Your task to perform on an android device: open app "Pinterest" (install if not already installed) Image 0: 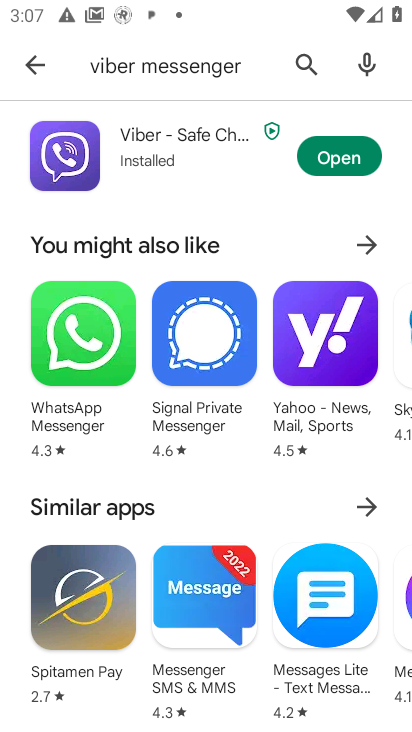
Step 0: click (292, 61)
Your task to perform on an android device: open app "Pinterest" (install if not already installed) Image 1: 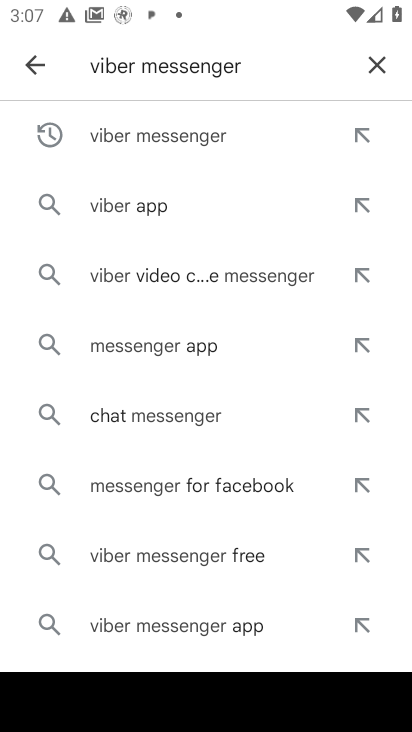
Step 1: click (372, 57)
Your task to perform on an android device: open app "Pinterest" (install if not already installed) Image 2: 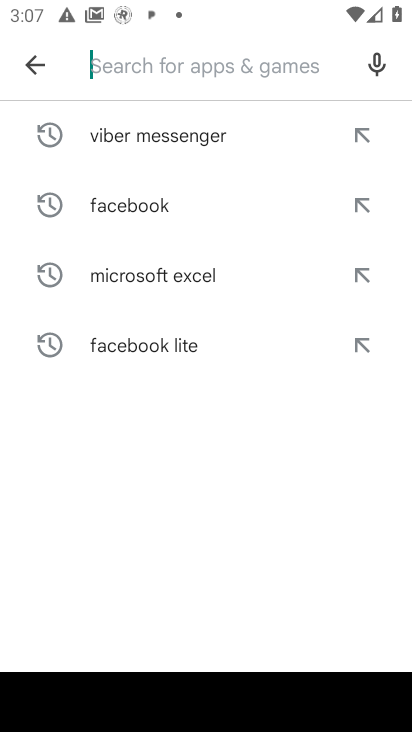
Step 2: type "Pinterest"
Your task to perform on an android device: open app "Pinterest" (install if not already installed) Image 3: 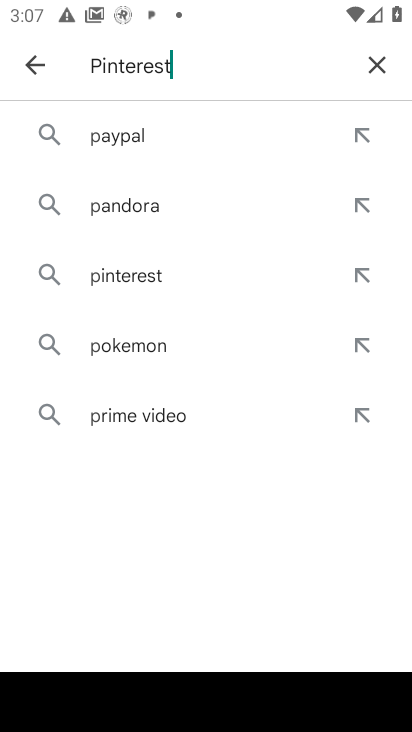
Step 3: type ""
Your task to perform on an android device: open app "Pinterest" (install if not already installed) Image 4: 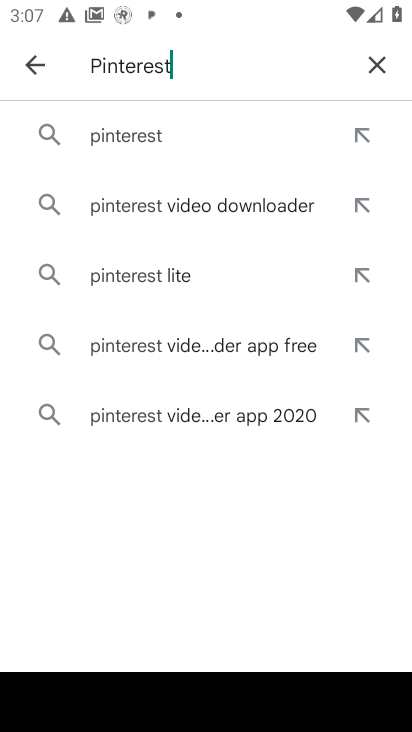
Step 4: click (196, 126)
Your task to perform on an android device: open app "Pinterest" (install if not already installed) Image 5: 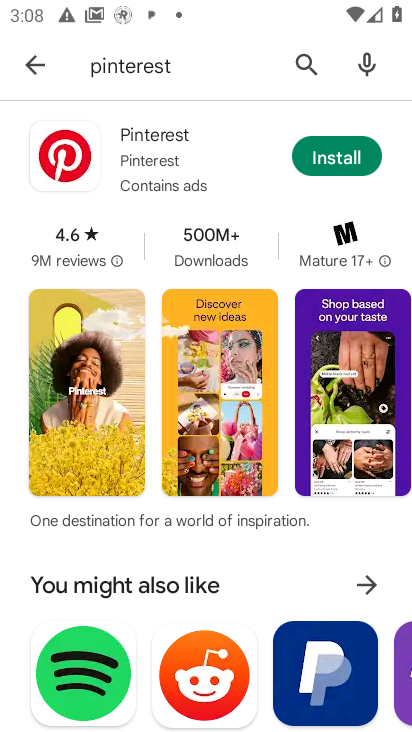
Step 5: click (324, 145)
Your task to perform on an android device: open app "Pinterest" (install if not already installed) Image 6: 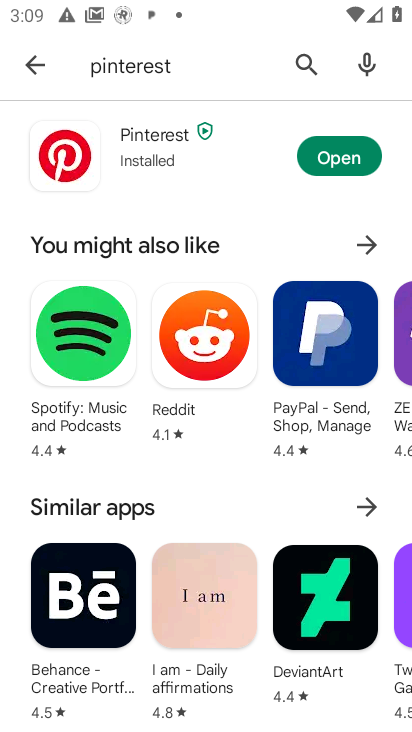
Step 6: click (324, 145)
Your task to perform on an android device: open app "Pinterest" (install if not already installed) Image 7: 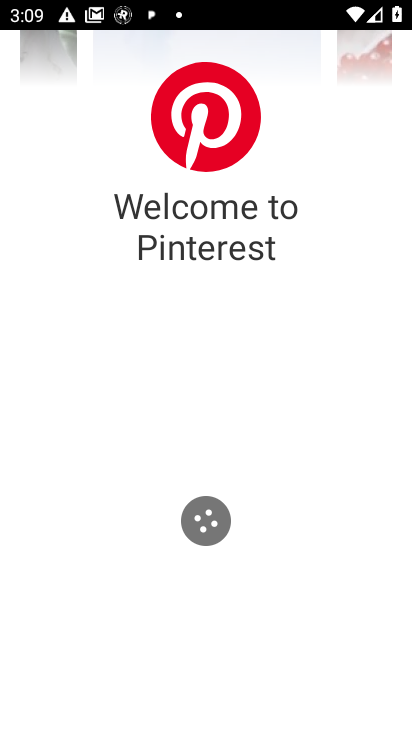
Step 7: task complete